Your task to perform on an android device: choose inbox layout in the gmail app Image 0: 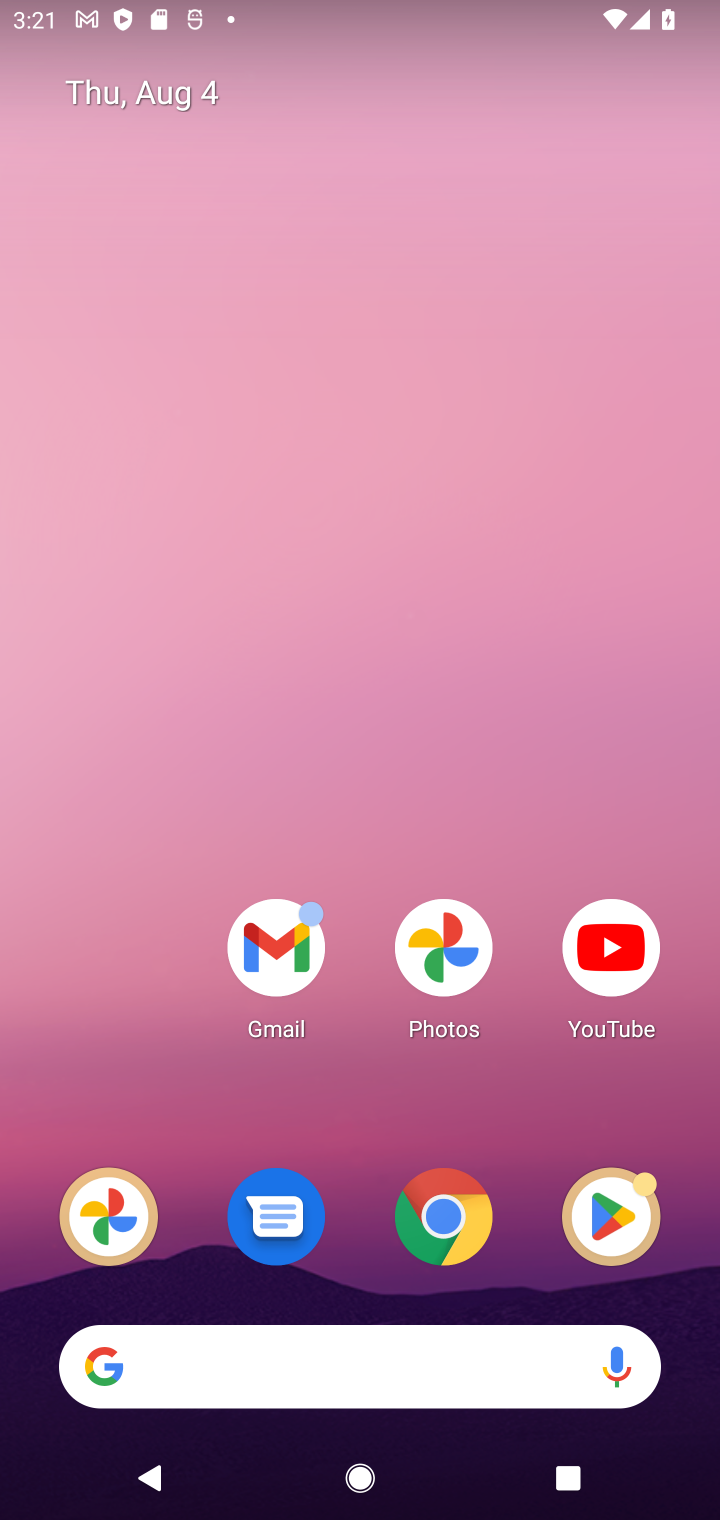
Step 0: task complete